Your task to perform on an android device: Go to display settings Image 0: 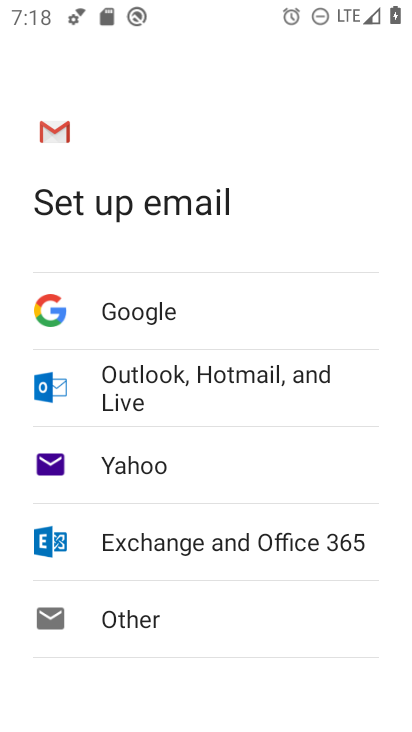
Step 0: press home button
Your task to perform on an android device: Go to display settings Image 1: 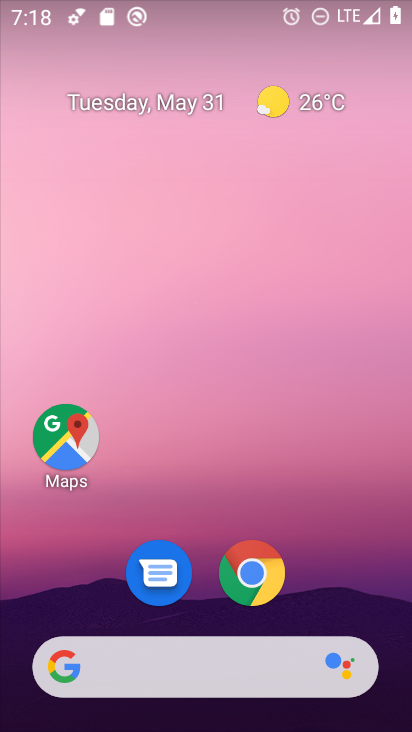
Step 1: drag from (407, 645) to (294, 16)
Your task to perform on an android device: Go to display settings Image 2: 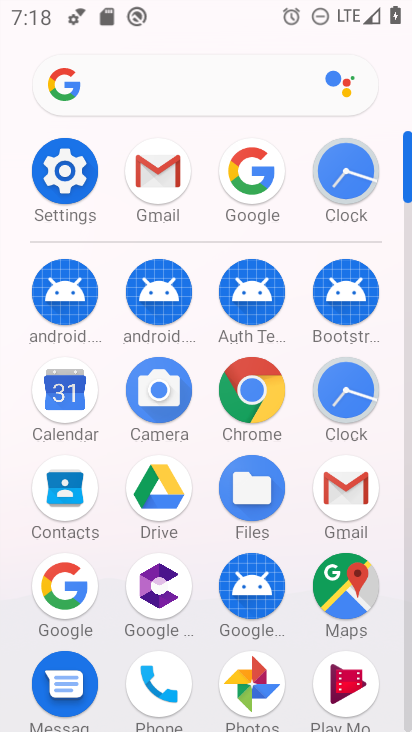
Step 2: click (89, 175)
Your task to perform on an android device: Go to display settings Image 3: 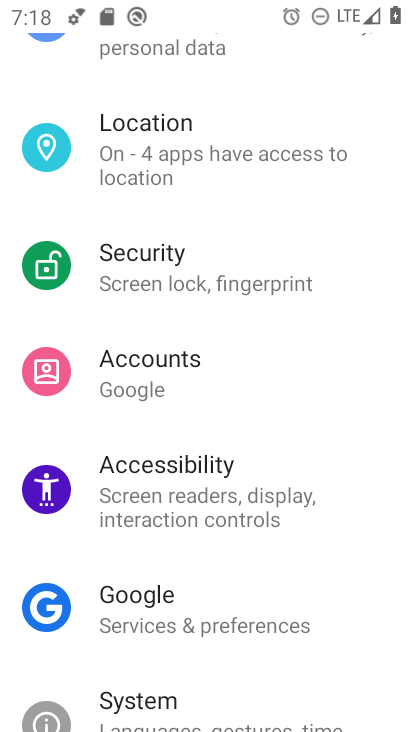
Step 3: drag from (237, 166) to (303, 595)
Your task to perform on an android device: Go to display settings Image 4: 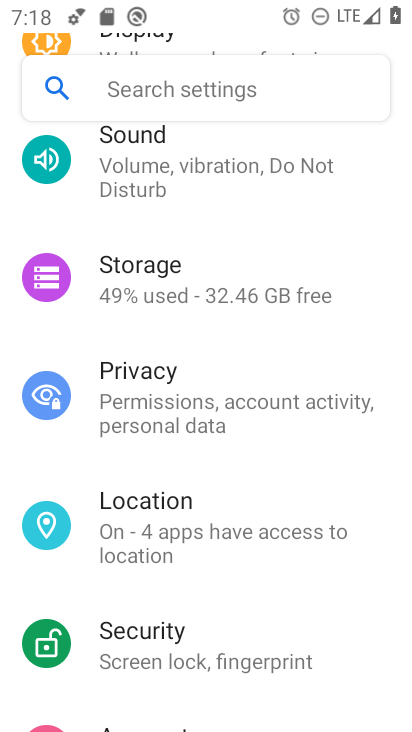
Step 4: drag from (224, 224) to (282, 616)
Your task to perform on an android device: Go to display settings Image 5: 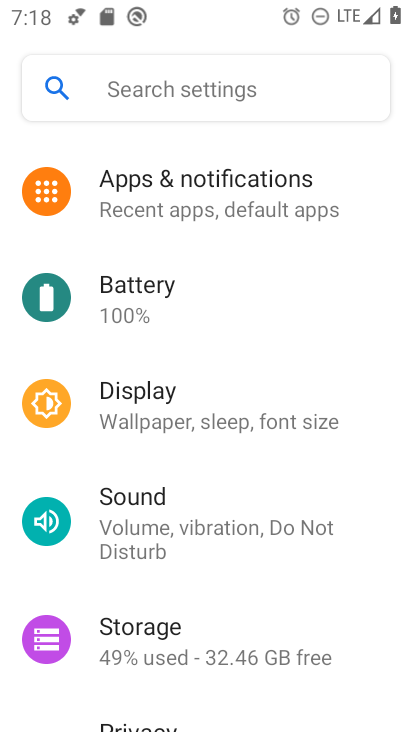
Step 5: click (185, 419)
Your task to perform on an android device: Go to display settings Image 6: 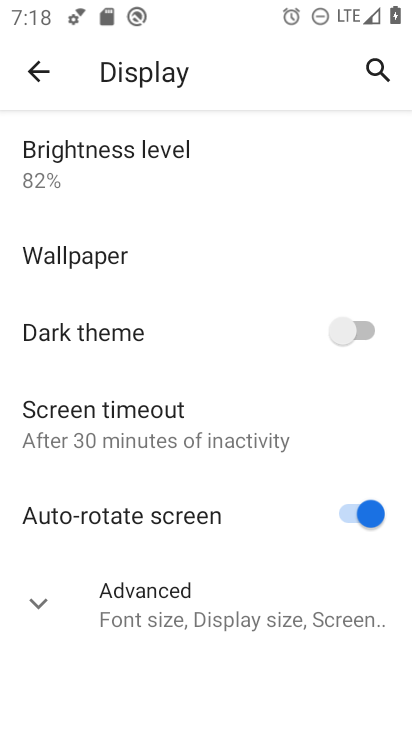
Step 6: task complete